Your task to perform on an android device: toggle location history Image 0: 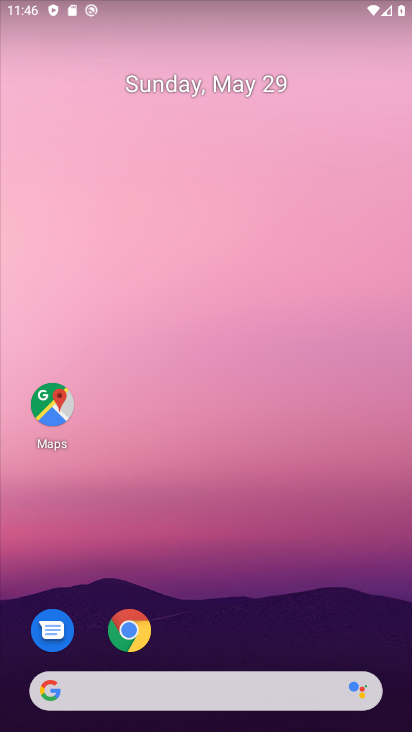
Step 0: drag from (245, 228) to (243, 191)
Your task to perform on an android device: toggle location history Image 1: 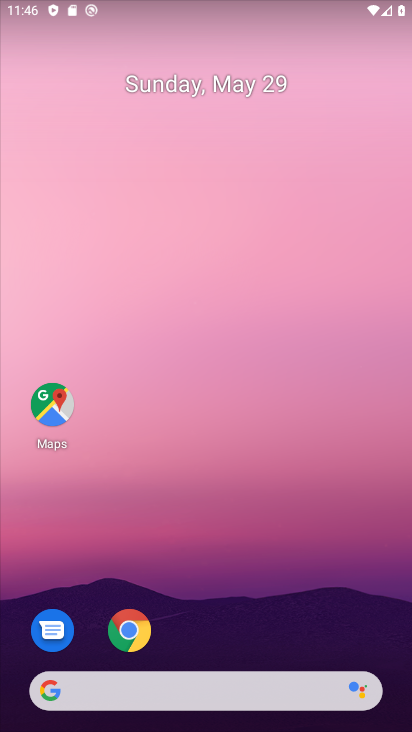
Step 1: drag from (261, 646) to (261, 160)
Your task to perform on an android device: toggle location history Image 2: 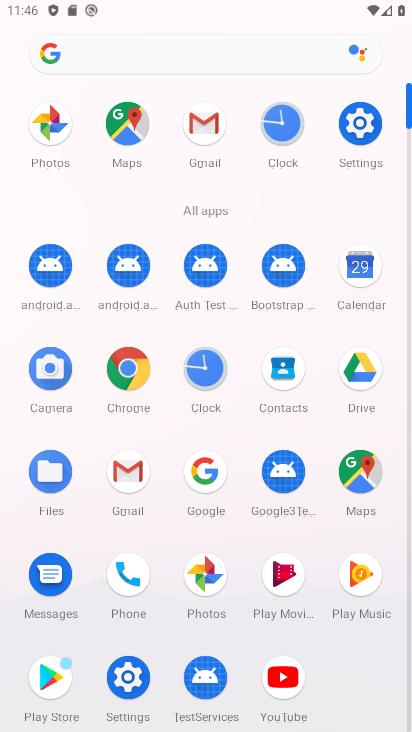
Step 2: click (363, 130)
Your task to perform on an android device: toggle location history Image 3: 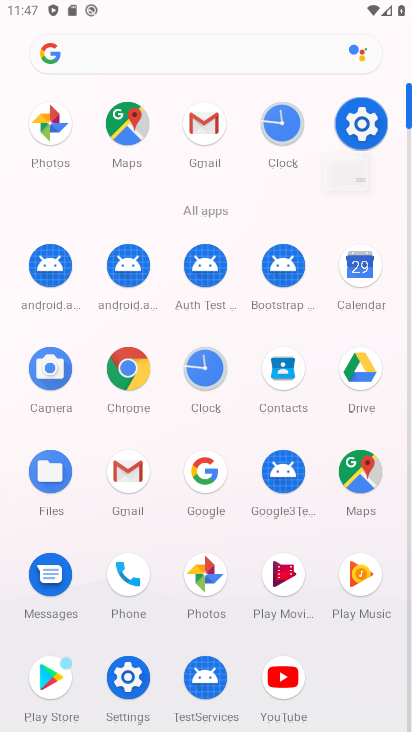
Step 3: click (367, 129)
Your task to perform on an android device: toggle location history Image 4: 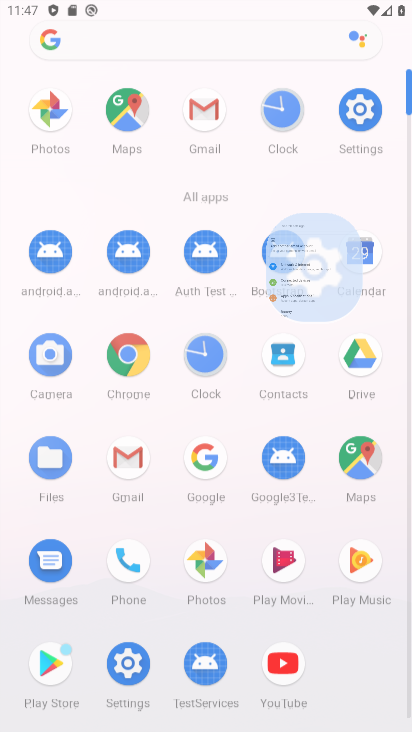
Step 4: click (367, 129)
Your task to perform on an android device: toggle location history Image 5: 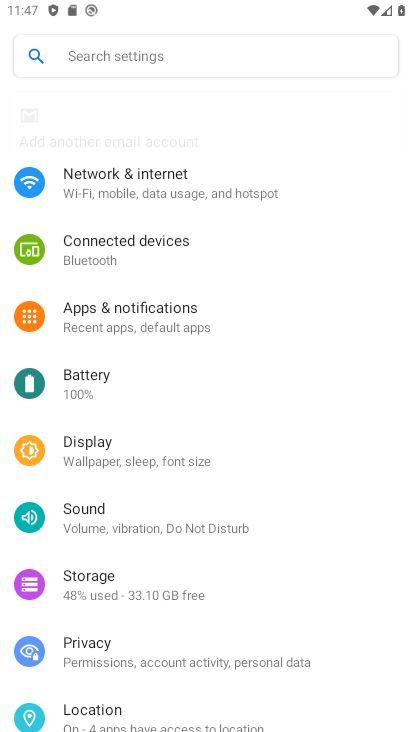
Step 5: click (367, 129)
Your task to perform on an android device: toggle location history Image 6: 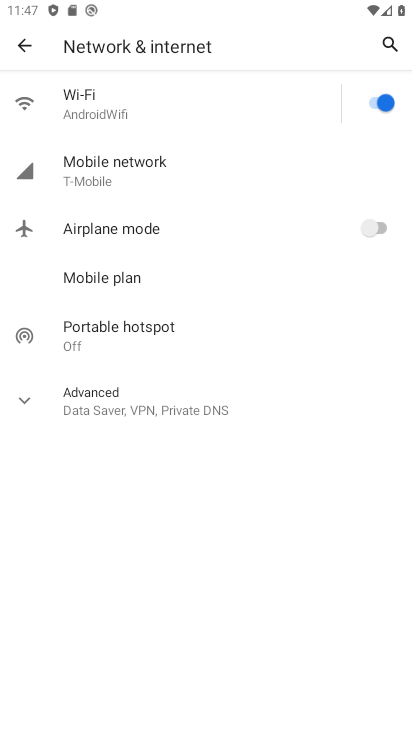
Step 6: click (13, 44)
Your task to perform on an android device: toggle location history Image 7: 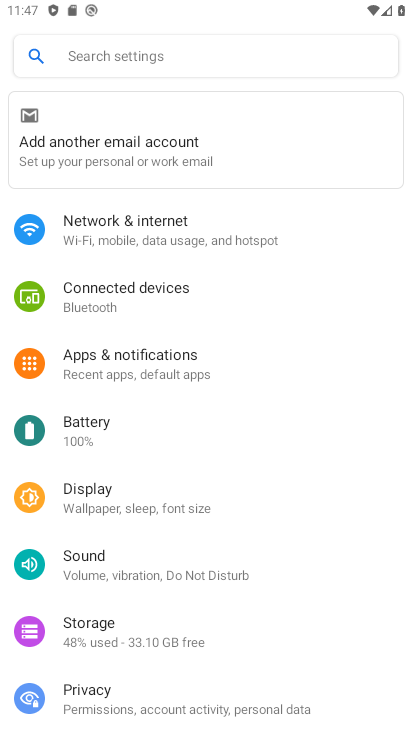
Step 7: drag from (131, 554) to (154, 176)
Your task to perform on an android device: toggle location history Image 8: 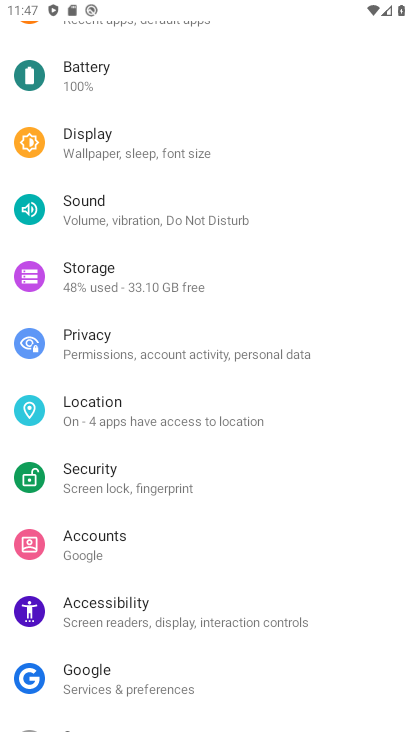
Step 8: drag from (159, 502) to (159, 315)
Your task to perform on an android device: toggle location history Image 9: 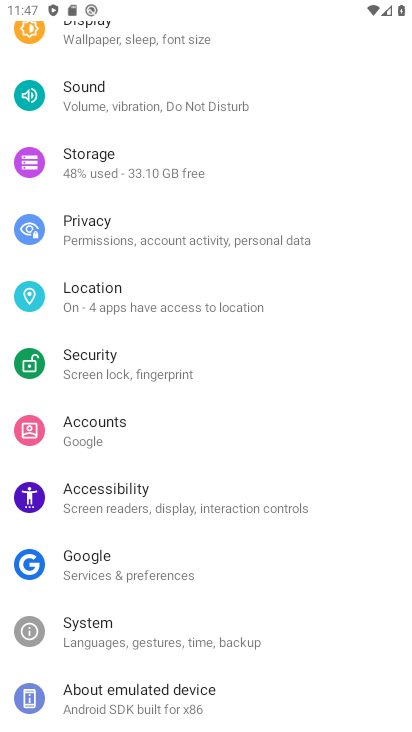
Step 9: drag from (174, 494) to (157, 325)
Your task to perform on an android device: toggle location history Image 10: 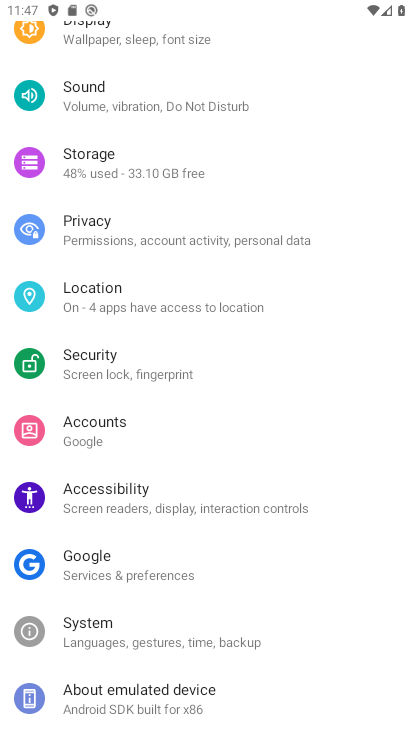
Step 10: click (107, 299)
Your task to perform on an android device: toggle location history Image 11: 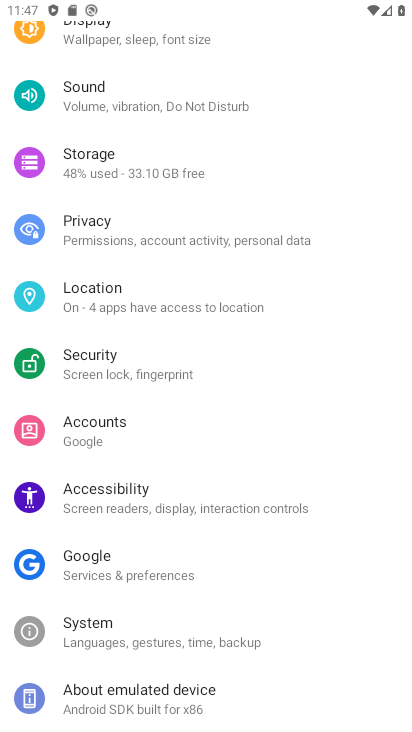
Step 11: click (107, 299)
Your task to perform on an android device: toggle location history Image 12: 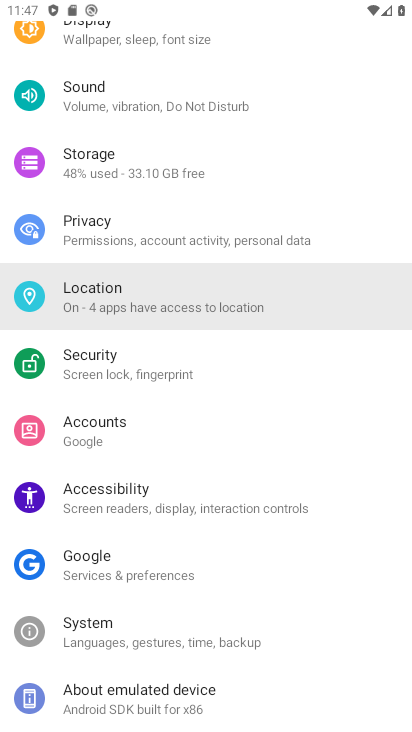
Step 12: click (107, 299)
Your task to perform on an android device: toggle location history Image 13: 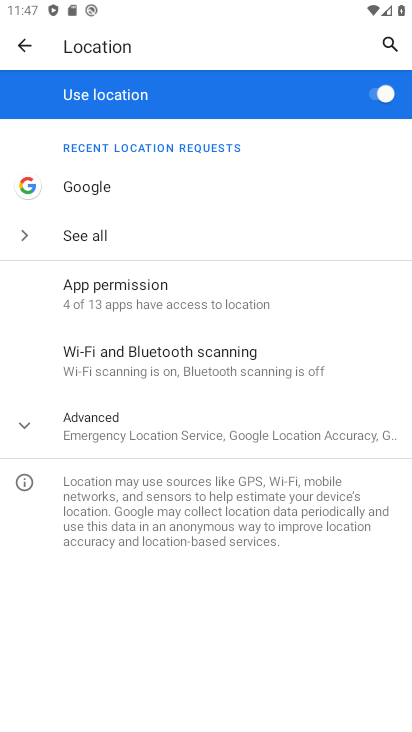
Step 13: click (95, 422)
Your task to perform on an android device: toggle location history Image 14: 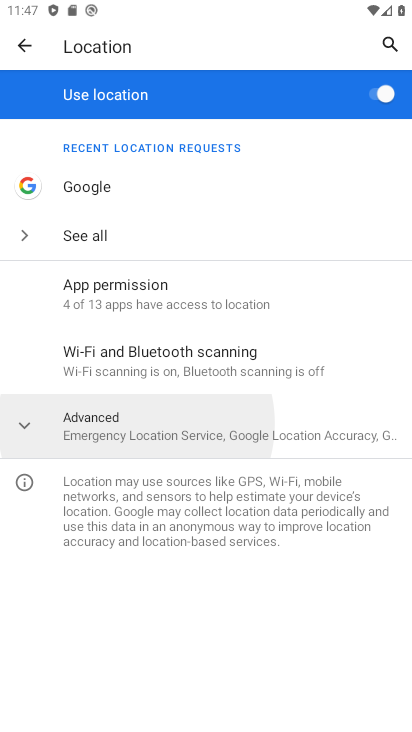
Step 14: click (96, 421)
Your task to perform on an android device: toggle location history Image 15: 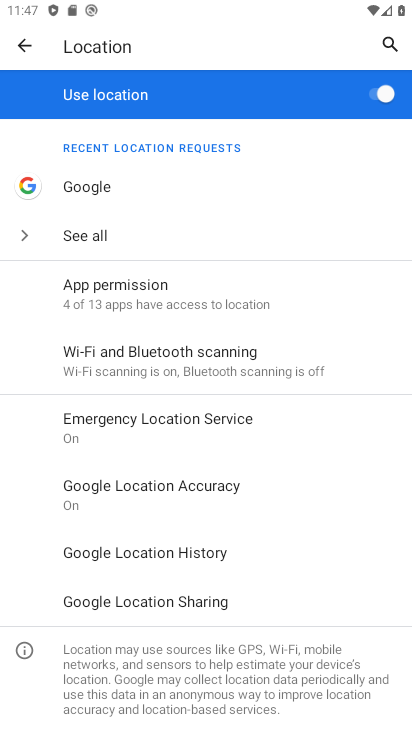
Step 15: click (150, 552)
Your task to perform on an android device: toggle location history Image 16: 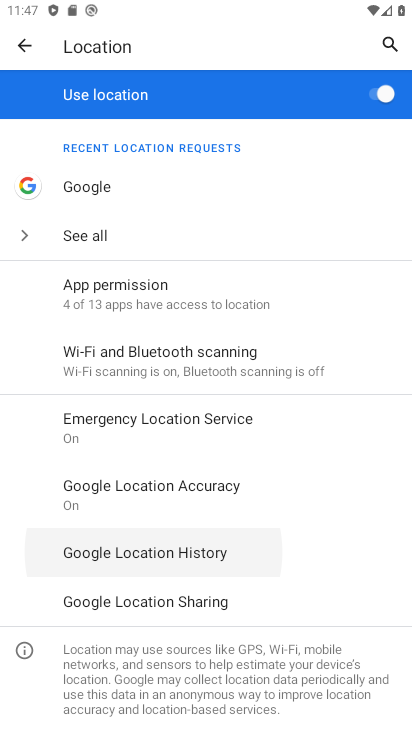
Step 16: click (150, 552)
Your task to perform on an android device: toggle location history Image 17: 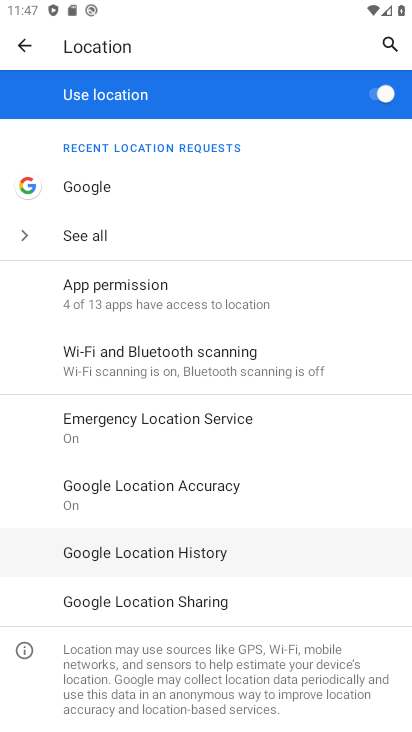
Step 17: click (150, 552)
Your task to perform on an android device: toggle location history Image 18: 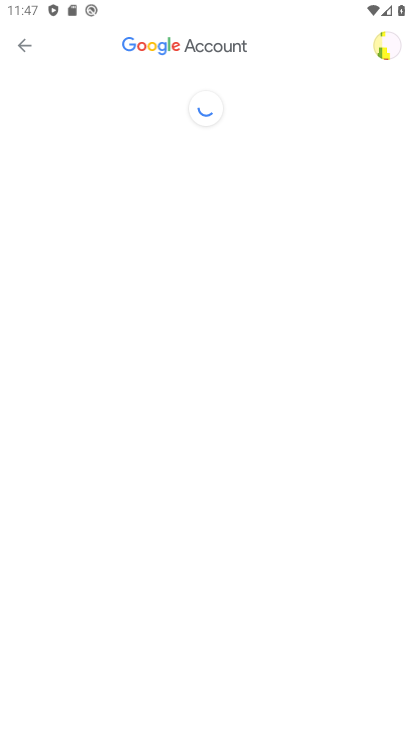
Step 18: drag from (232, 554) to (215, 222)
Your task to perform on an android device: toggle location history Image 19: 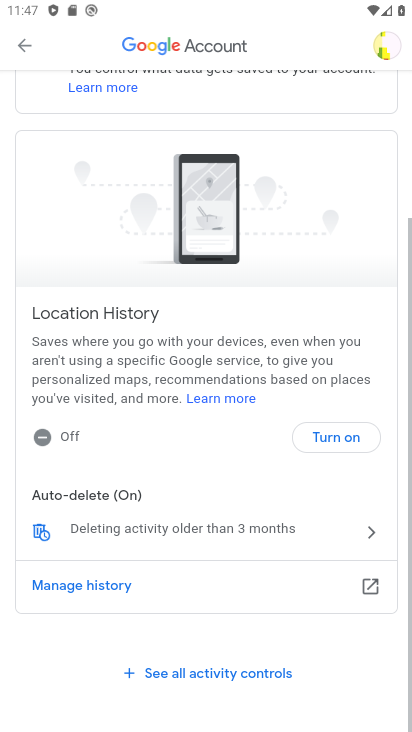
Step 19: drag from (217, 333) to (217, 235)
Your task to perform on an android device: toggle location history Image 20: 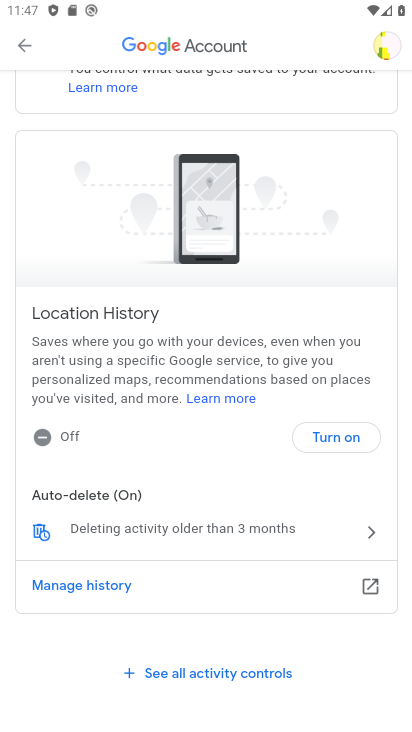
Step 20: drag from (212, 573) to (212, 217)
Your task to perform on an android device: toggle location history Image 21: 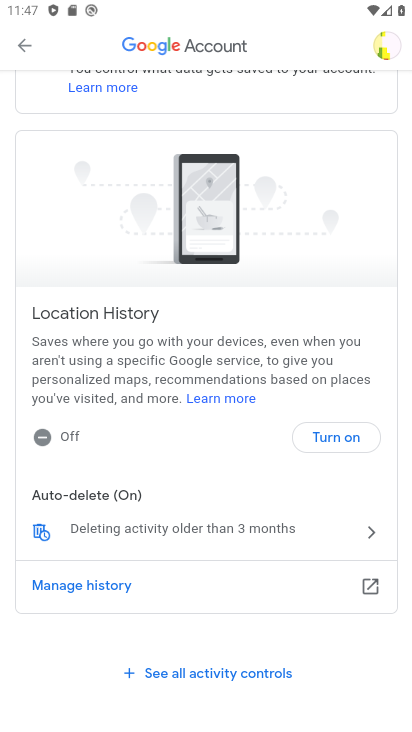
Step 21: click (340, 431)
Your task to perform on an android device: toggle location history Image 22: 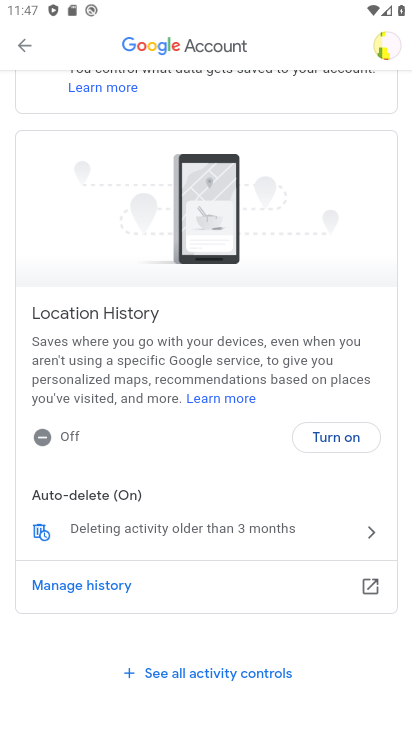
Step 22: click (338, 433)
Your task to perform on an android device: toggle location history Image 23: 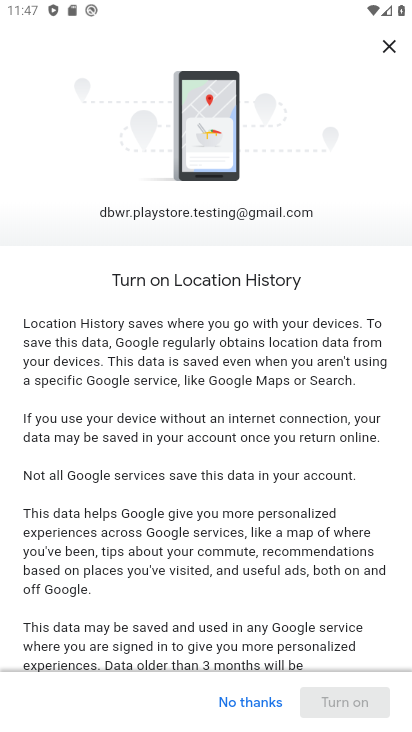
Step 23: task complete